Your task to perform on an android device: all mails in gmail Image 0: 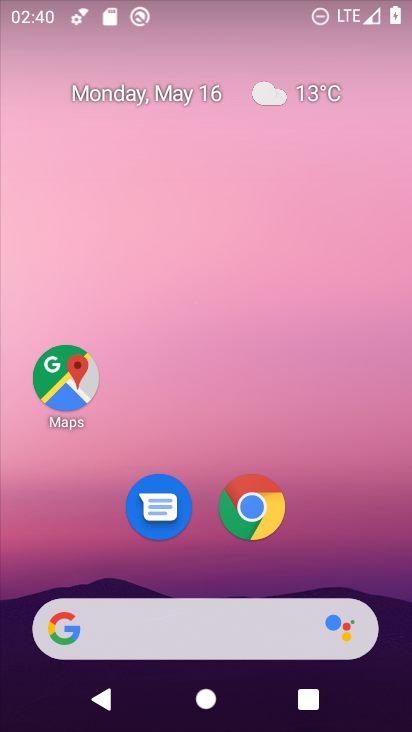
Step 0: drag from (333, 533) to (229, 49)
Your task to perform on an android device: all mails in gmail Image 1: 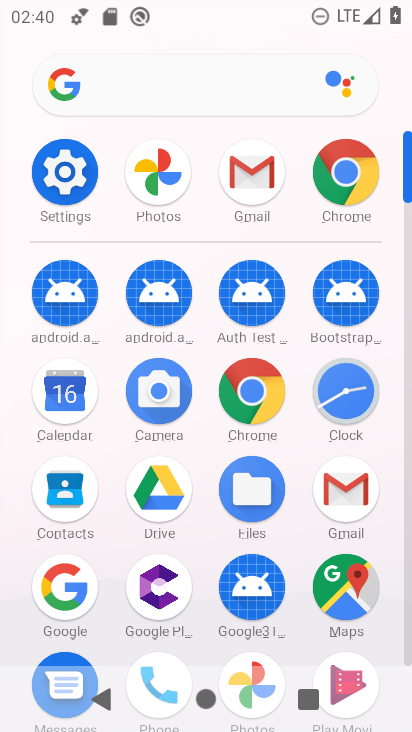
Step 1: click (340, 486)
Your task to perform on an android device: all mails in gmail Image 2: 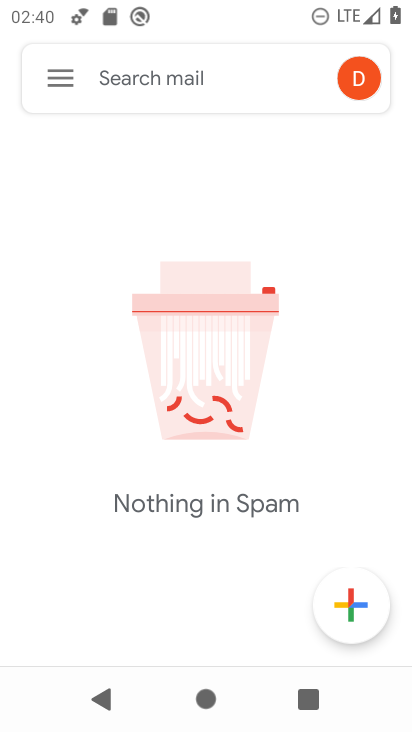
Step 2: click (62, 70)
Your task to perform on an android device: all mails in gmail Image 3: 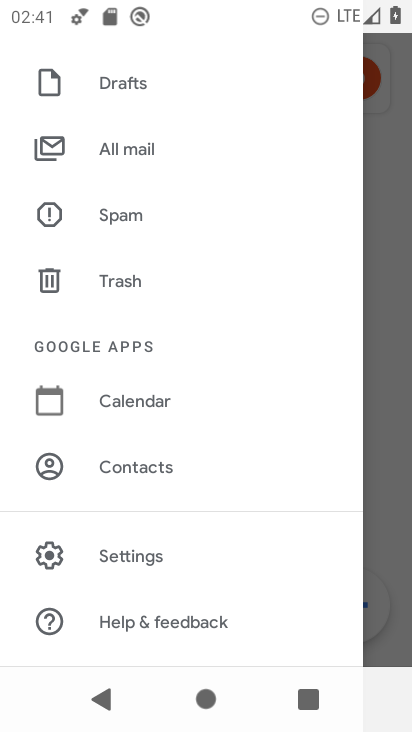
Step 3: click (168, 154)
Your task to perform on an android device: all mails in gmail Image 4: 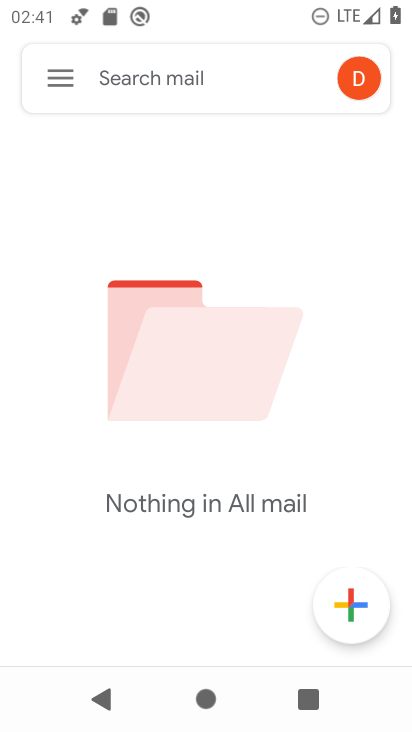
Step 4: task complete